Your task to perform on an android device: change your default location settings in chrome Image 0: 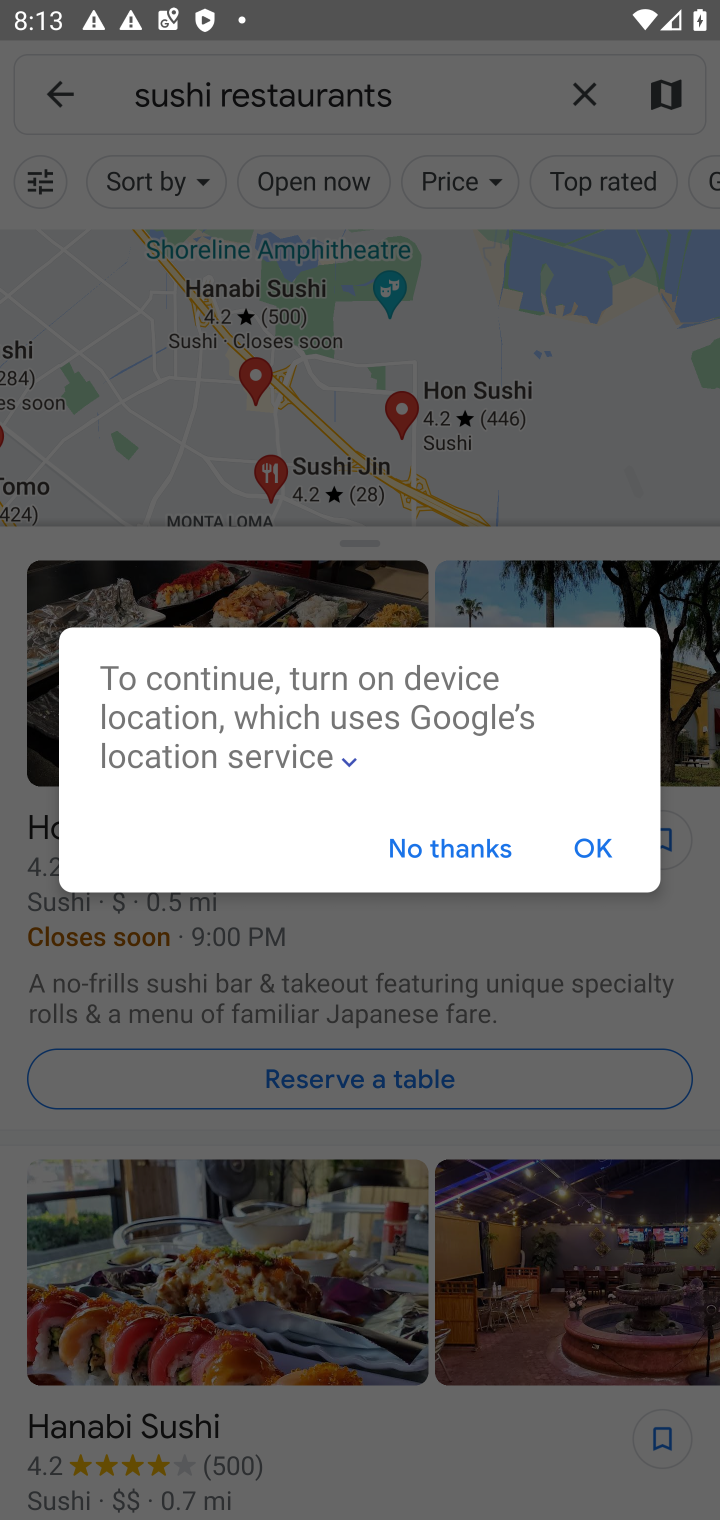
Step 0: press home button
Your task to perform on an android device: change your default location settings in chrome Image 1: 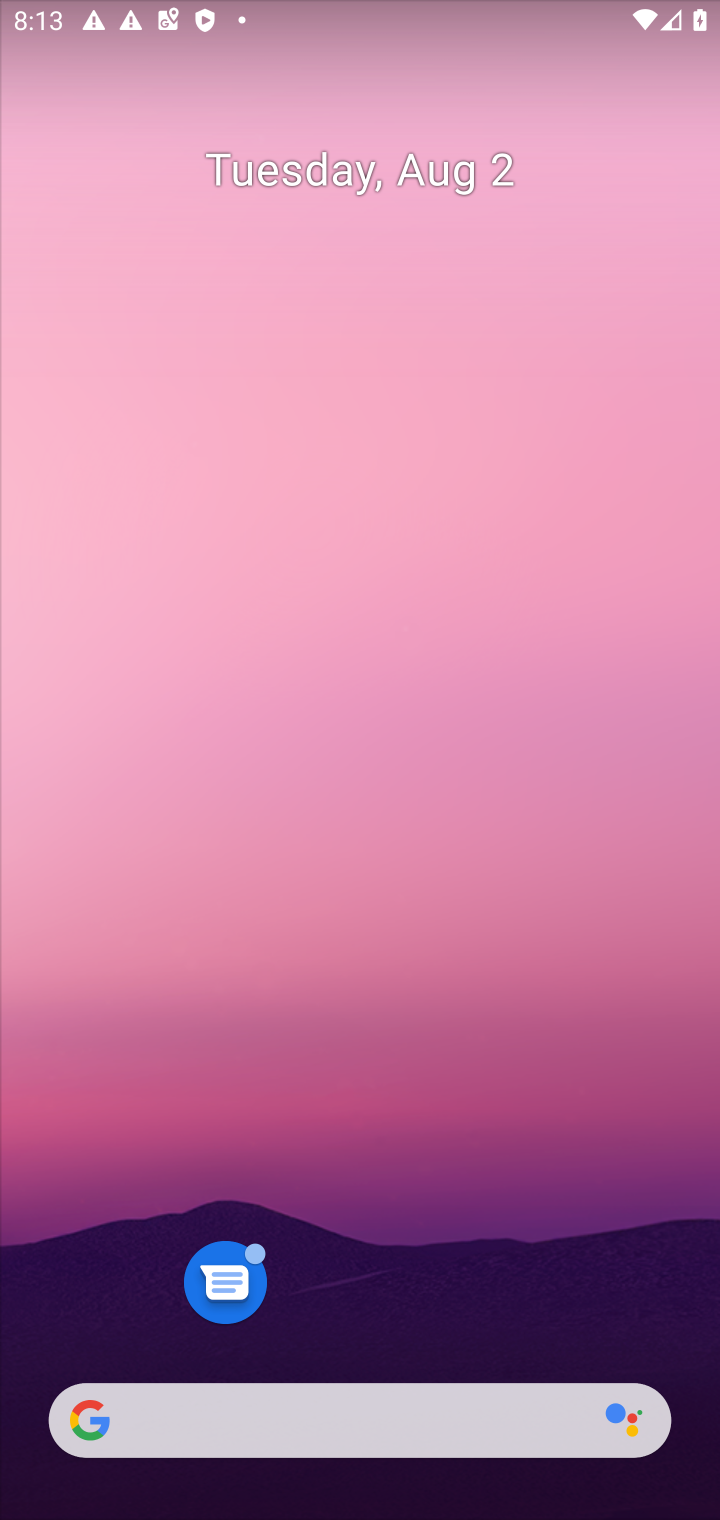
Step 1: drag from (362, 1342) to (452, 1188)
Your task to perform on an android device: change your default location settings in chrome Image 2: 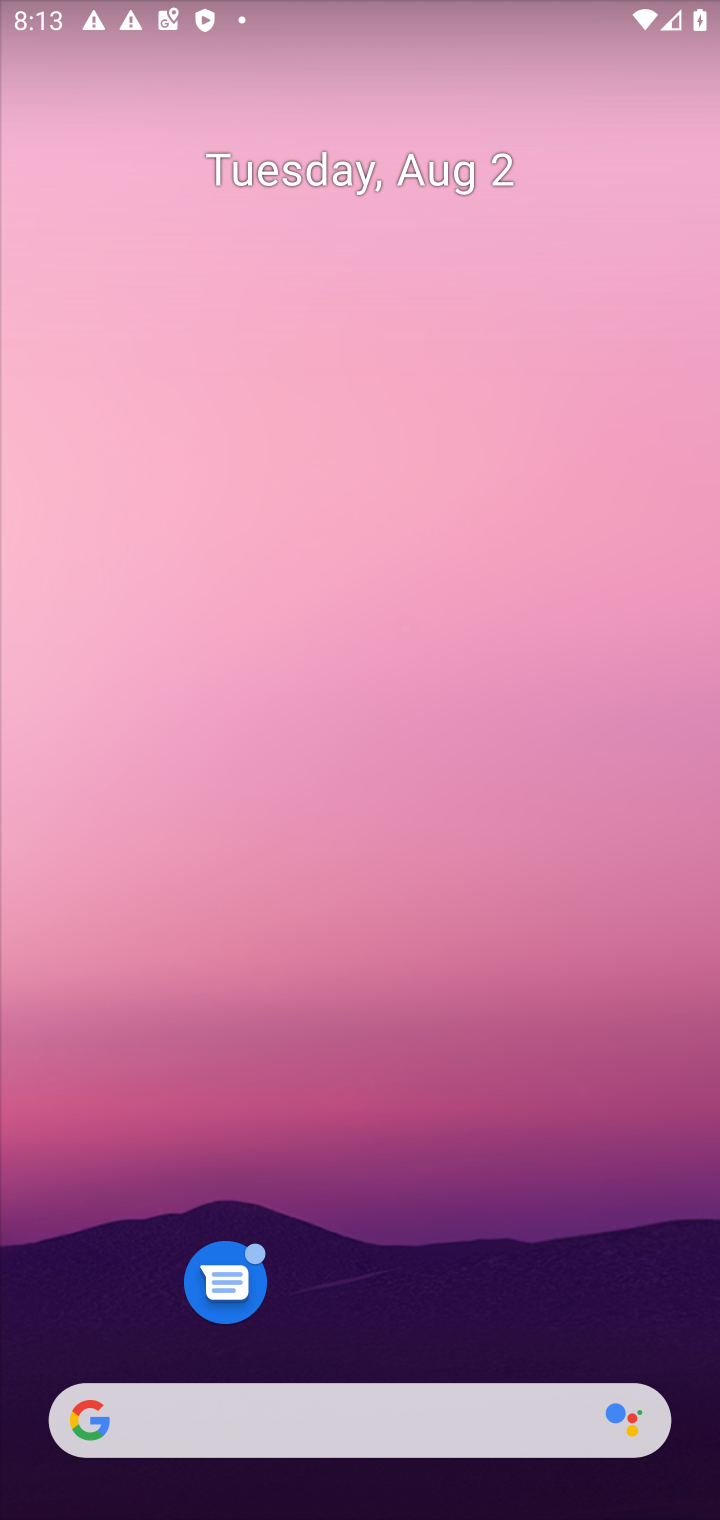
Step 2: drag from (311, 1346) to (216, 98)
Your task to perform on an android device: change your default location settings in chrome Image 3: 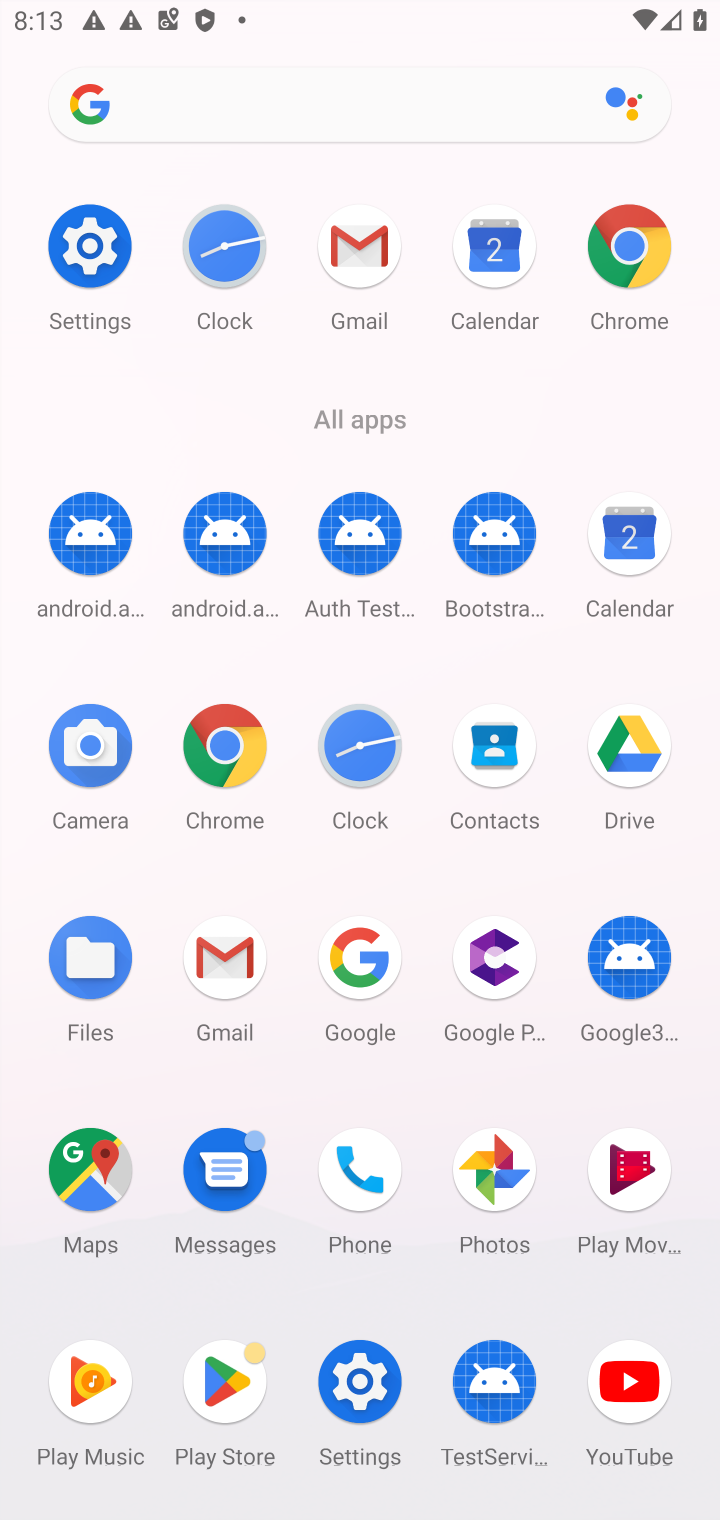
Step 3: click (623, 275)
Your task to perform on an android device: change your default location settings in chrome Image 4: 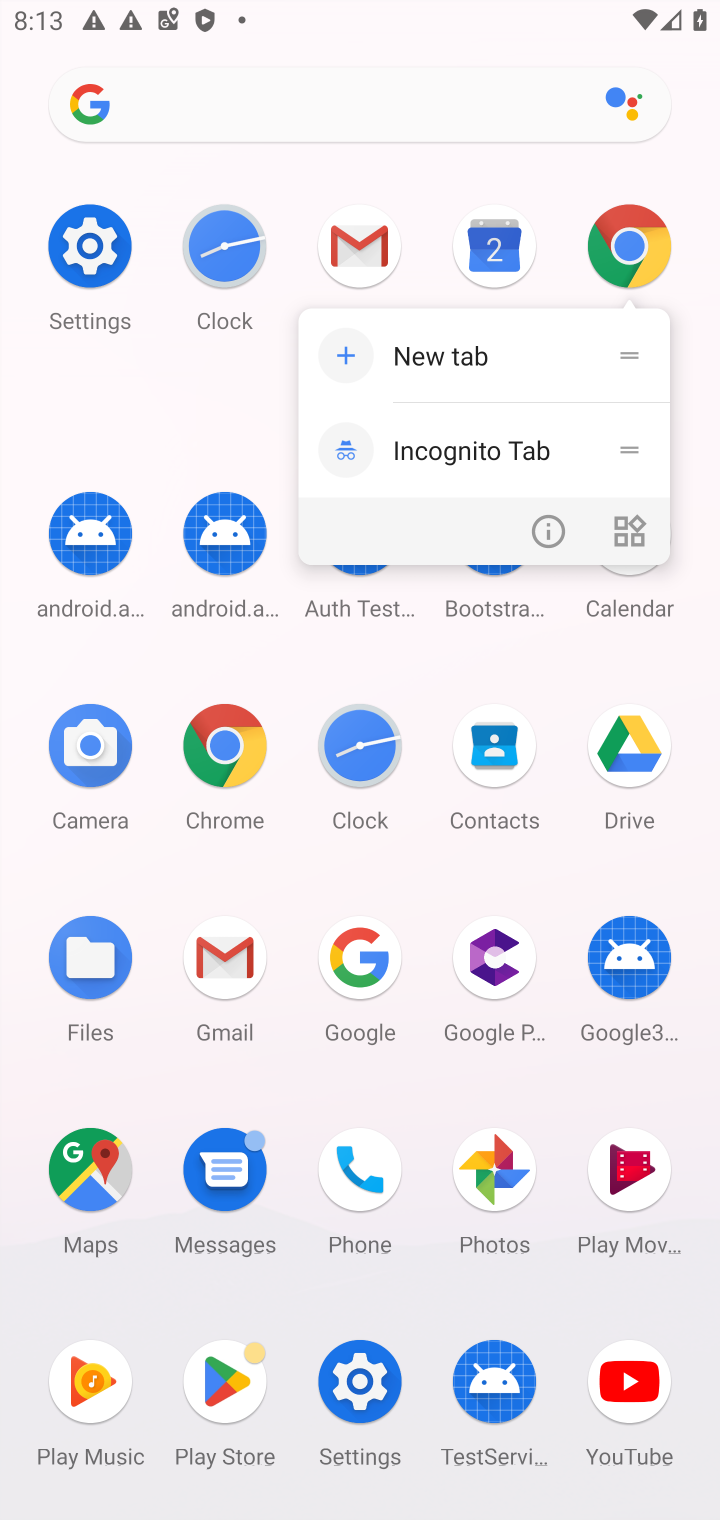
Step 4: click (623, 275)
Your task to perform on an android device: change your default location settings in chrome Image 5: 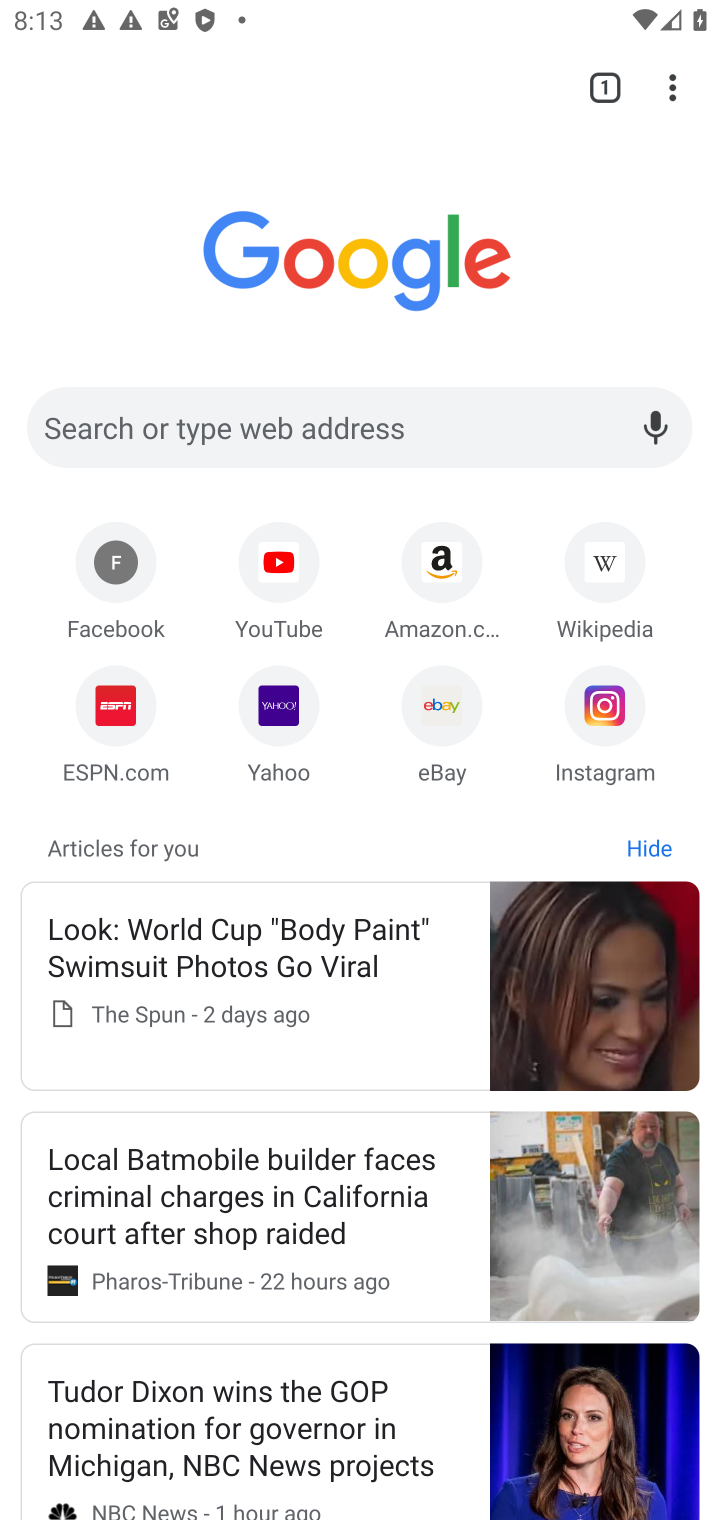
Step 5: click (666, 89)
Your task to perform on an android device: change your default location settings in chrome Image 6: 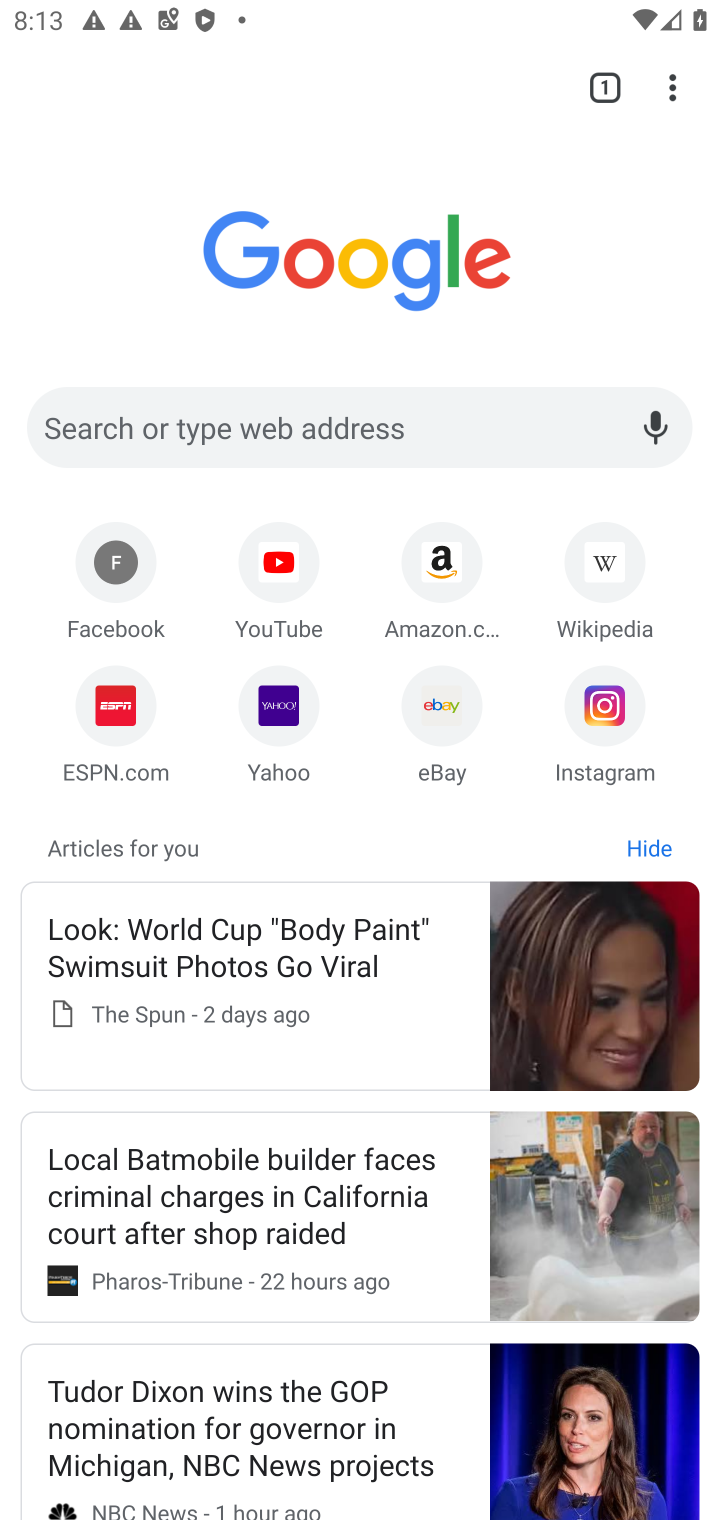
Step 6: click (666, 89)
Your task to perform on an android device: change your default location settings in chrome Image 7: 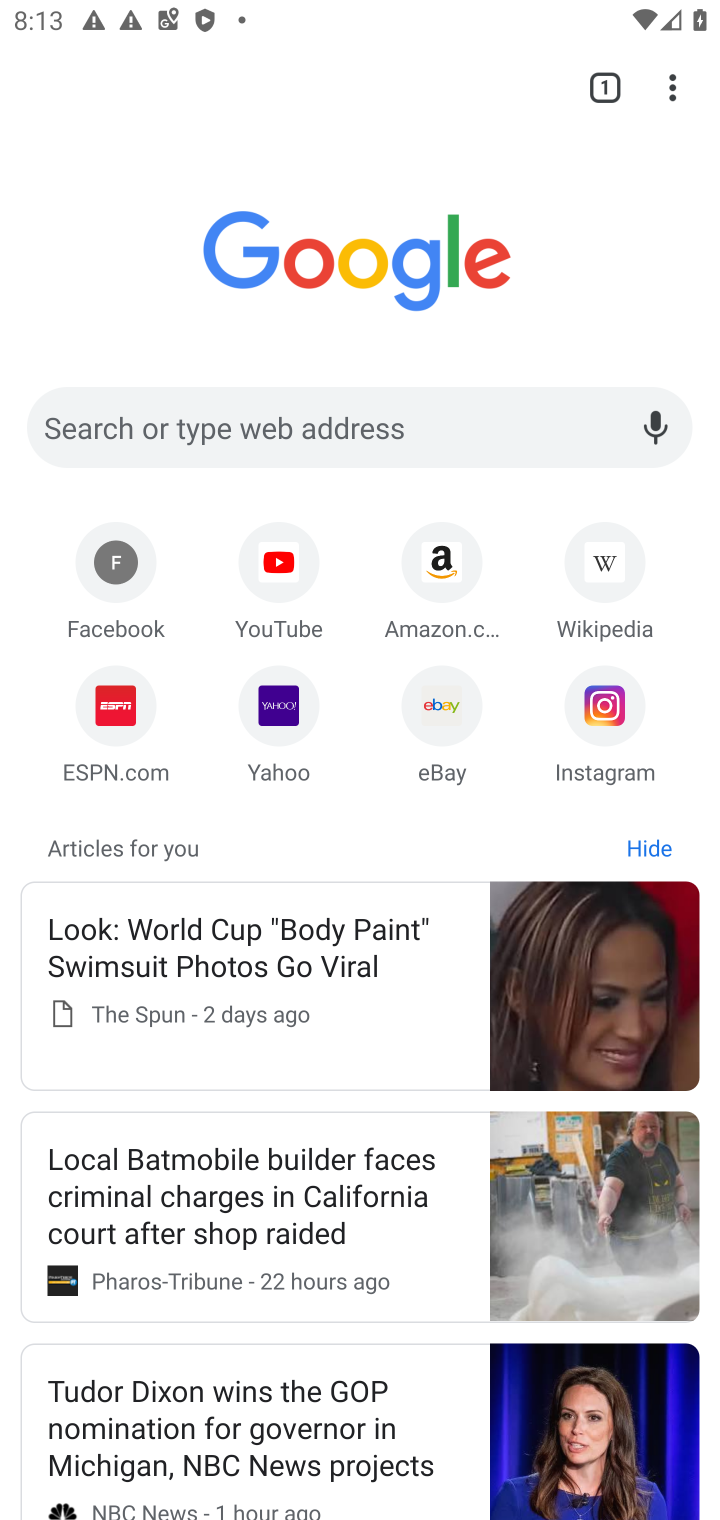
Step 7: drag from (666, 89) to (365, 749)
Your task to perform on an android device: change your default location settings in chrome Image 8: 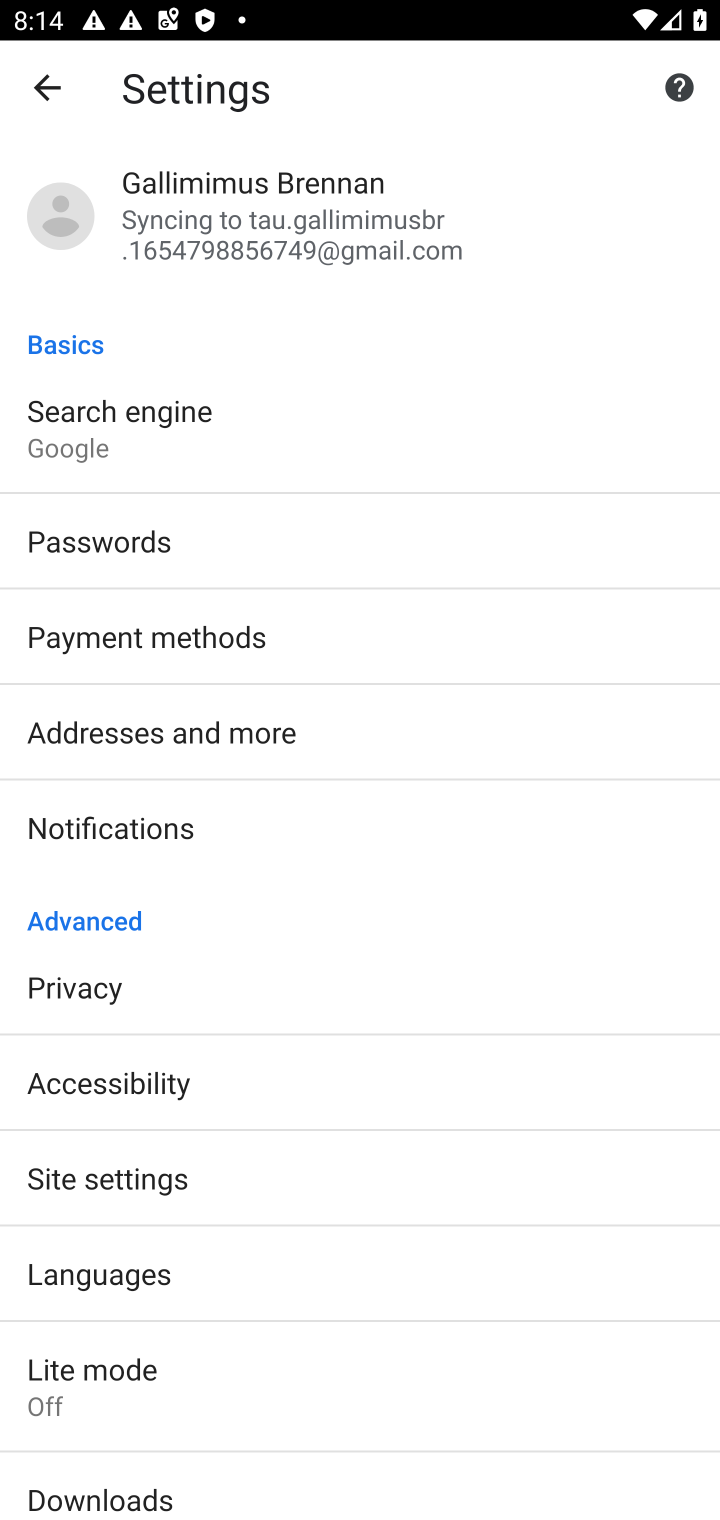
Step 8: click (110, 1165)
Your task to perform on an android device: change your default location settings in chrome Image 9: 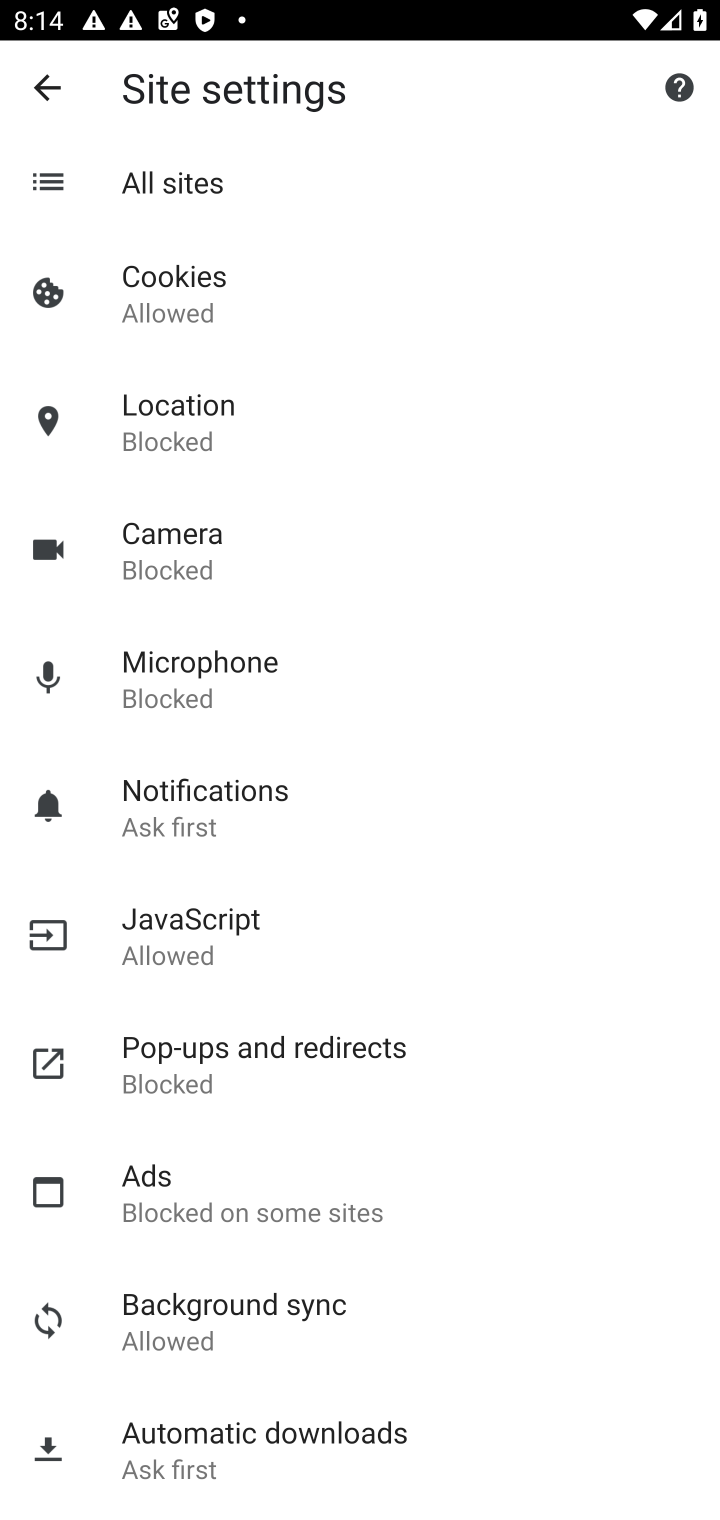
Step 9: click (157, 442)
Your task to perform on an android device: change your default location settings in chrome Image 10: 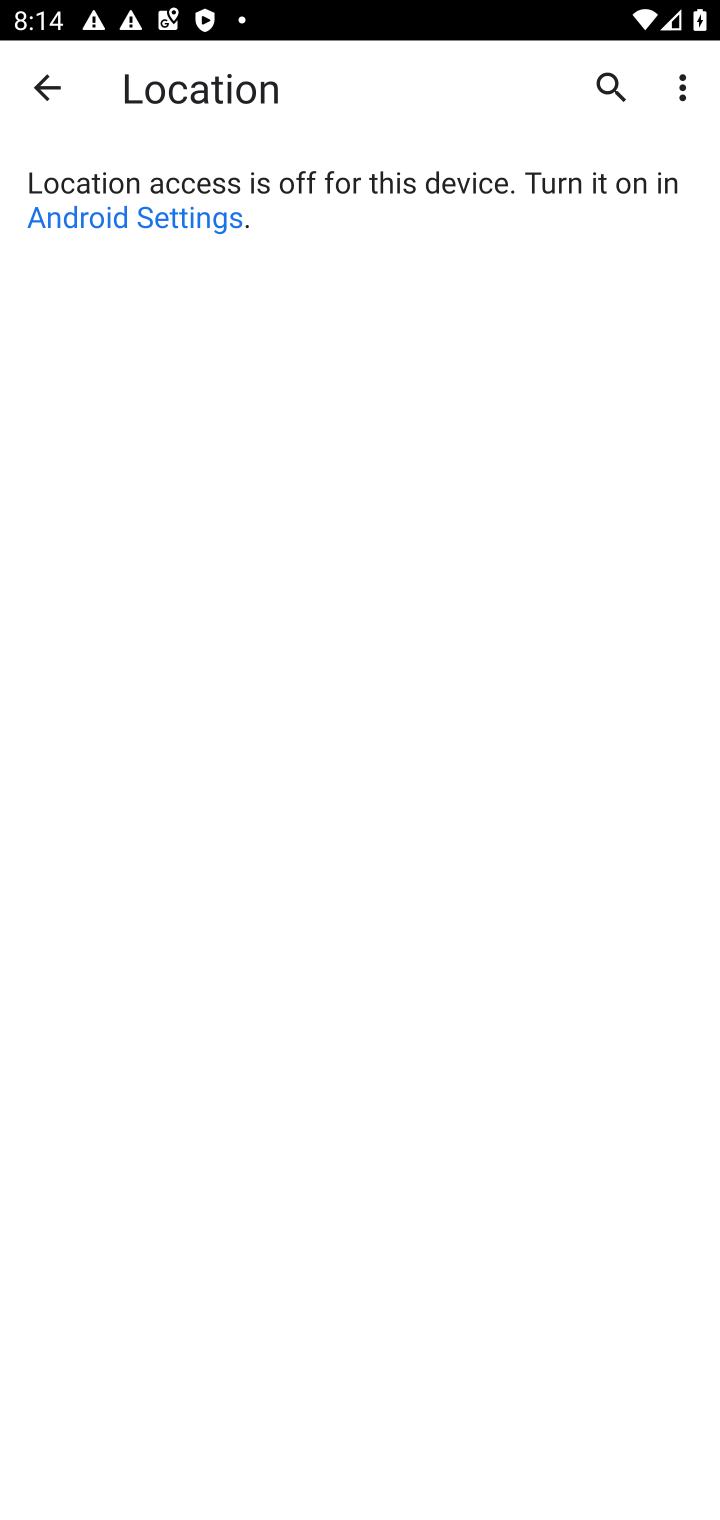
Step 10: task complete